Your task to perform on an android device: Show me the alarms in the clock app Image 0: 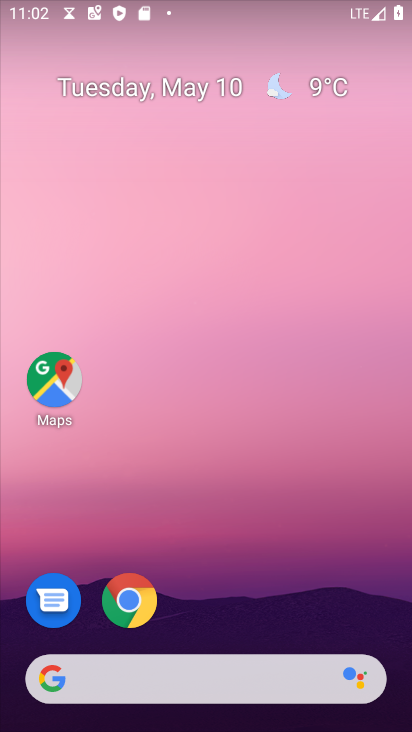
Step 0: drag from (295, 614) to (210, 143)
Your task to perform on an android device: Show me the alarms in the clock app Image 1: 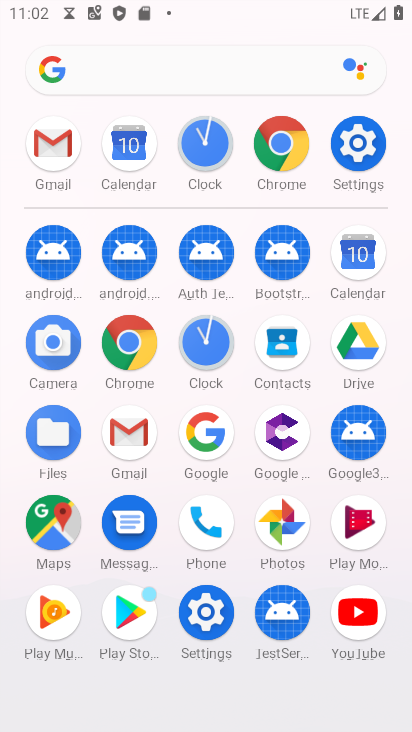
Step 1: click (202, 136)
Your task to perform on an android device: Show me the alarms in the clock app Image 2: 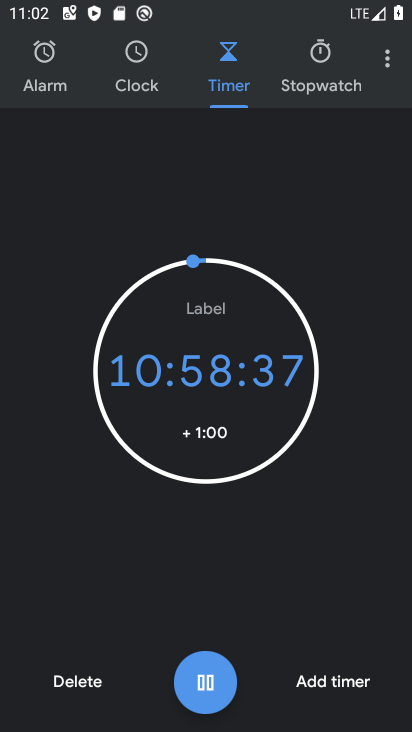
Step 2: click (44, 67)
Your task to perform on an android device: Show me the alarms in the clock app Image 3: 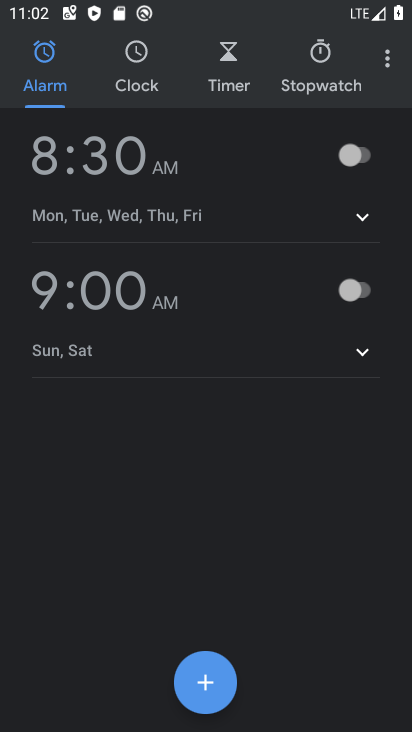
Step 3: task complete